Your task to perform on an android device: Go to Yahoo.com Image 0: 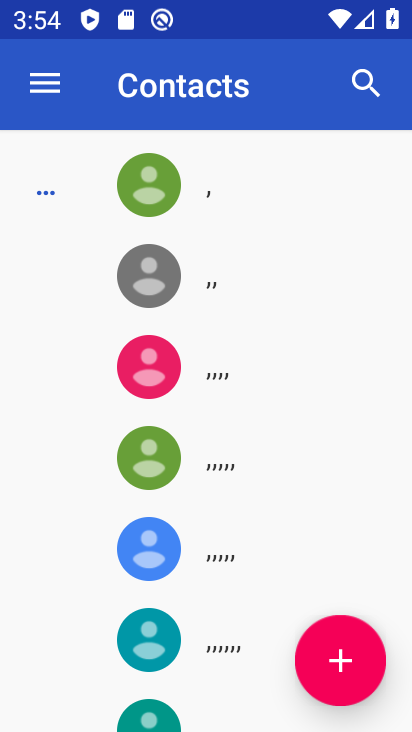
Step 0: press home button
Your task to perform on an android device: Go to Yahoo.com Image 1: 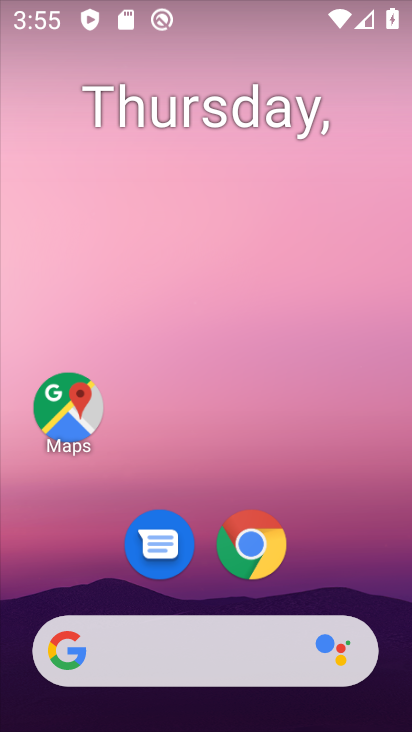
Step 1: click (241, 541)
Your task to perform on an android device: Go to Yahoo.com Image 2: 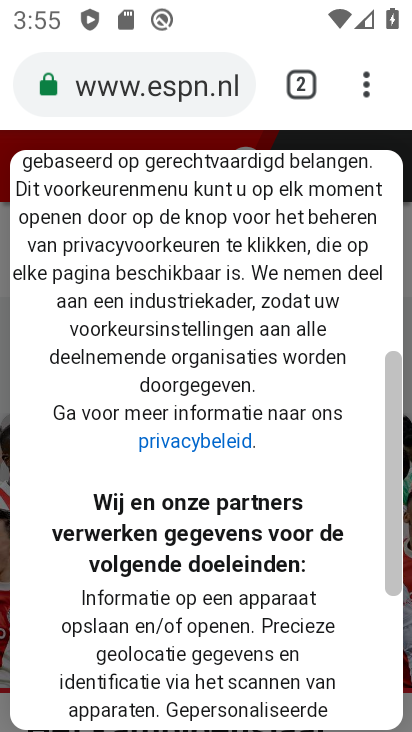
Step 2: click (298, 87)
Your task to perform on an android device: Go to Yahoo.com Image 3: 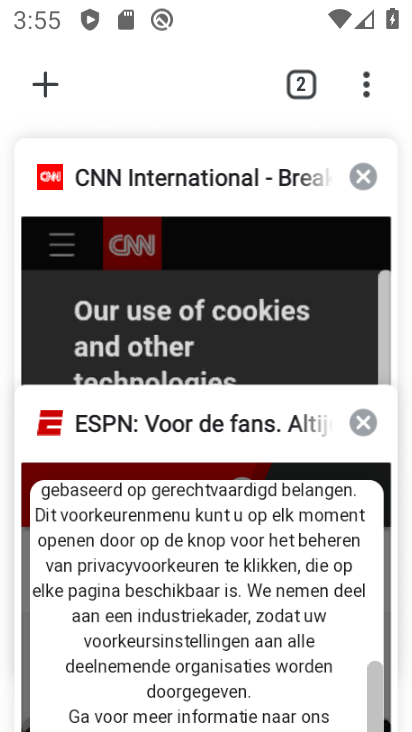
Step 3: click (41, 79)
Your task to perform on an android device: Go to Yahoo.com Image 4: 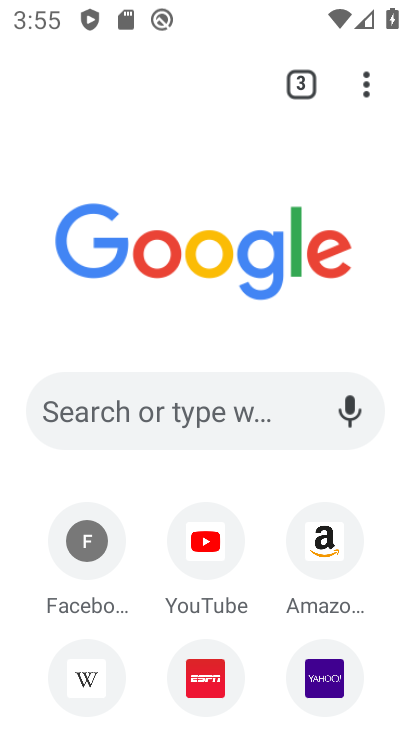
Step 4: drag from (269, 548) to (232, 215)
Your task to perform on an android device: Go to Yahoo.com Image 5: 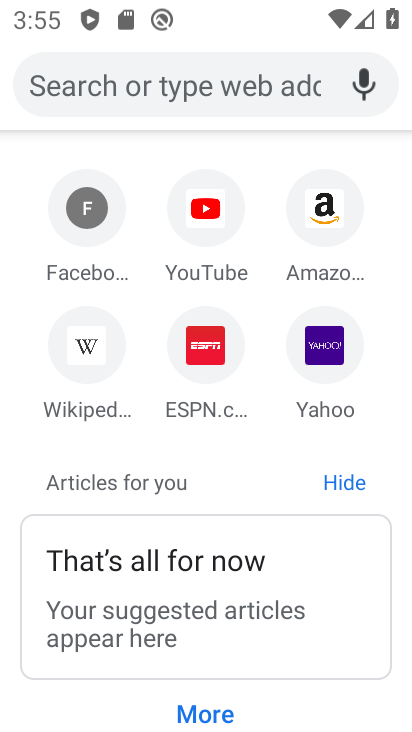
Step 5: click (305, 356)
Your task to perform on an android device: Go to Yahoo.com Image 6: 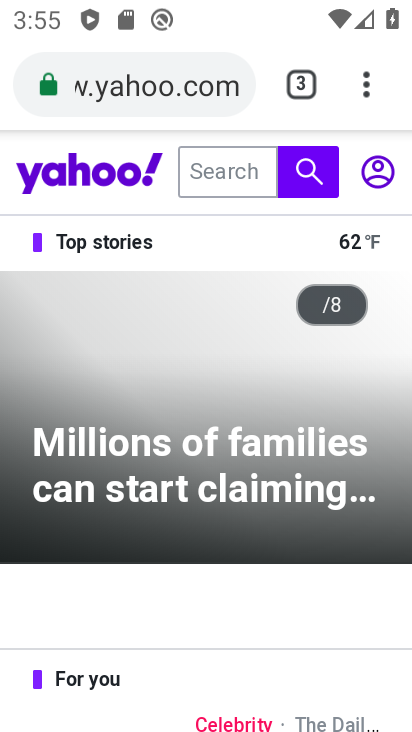
Step 6: task complete